Your task to perform on an android device: turn on javascript in the chrome app Image 0: 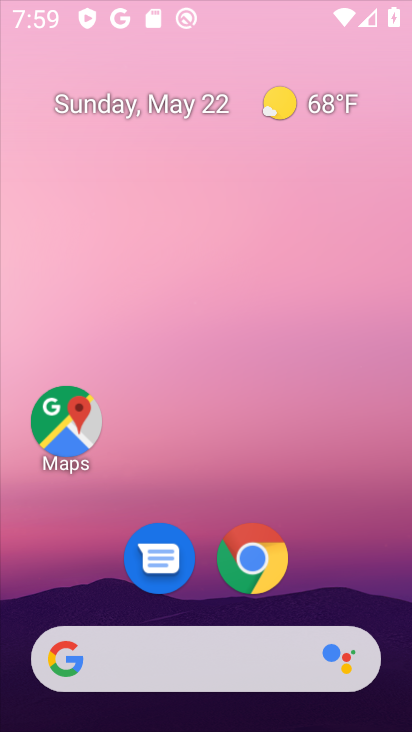
Step 0: click (303, 211)
Your task to perform on an android device: turn on javascript in the chrome app Image 1: 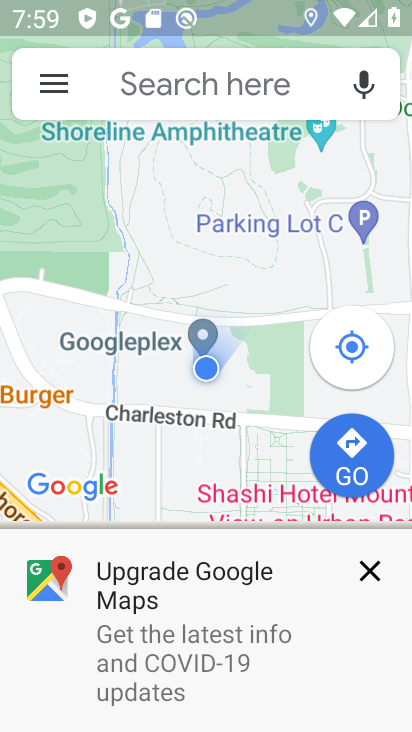
Step 1: press home button
Your task to perform on an android device: turn on javascript in the chrome app Image 2: 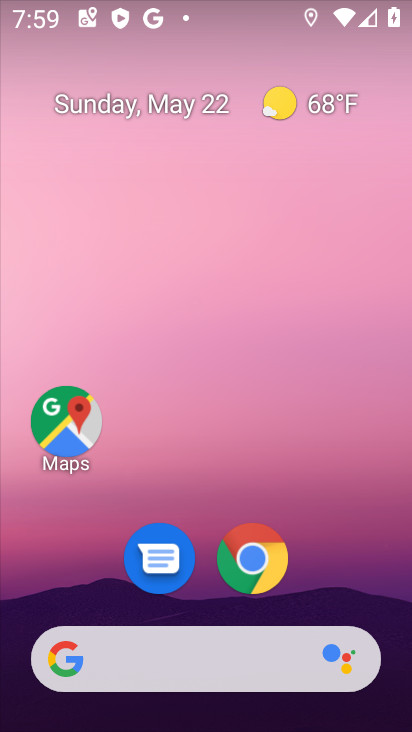
Step 2: drag from (318, 599) to (349, 350)
Your task to perform on an android device: turn on javascript in the chrome app Image 3: 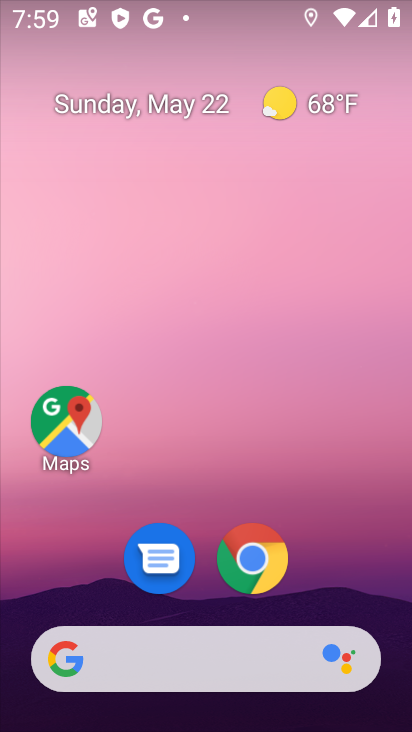
Step 3: drag from (304, 615) to (308, 275)
Your task to perform on an android device: turn on javascript in the chrome app Image 4: 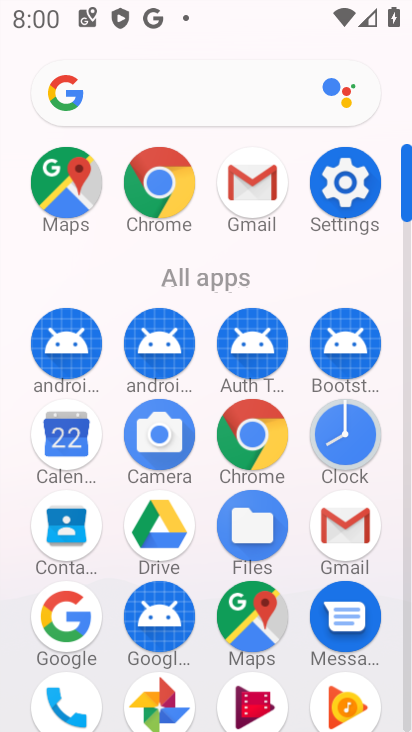
Step 4: click (350, 178)
Your task to perform on an android device: turn on javascript in the chrome app Image 5: 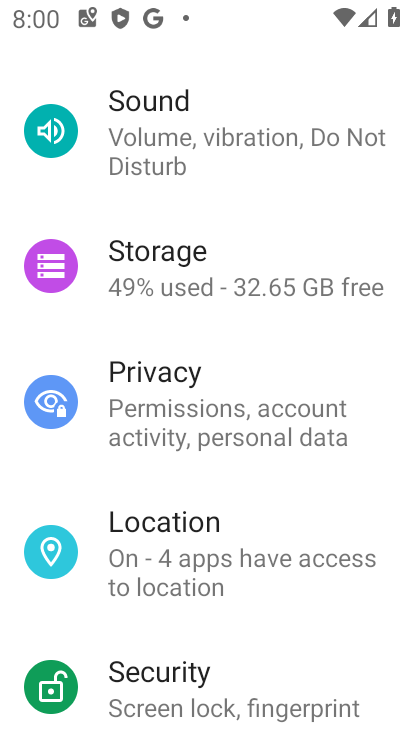
Step 5: press home button
Your task to perform on an android device: turn on javascript in the chrome app Image 6: 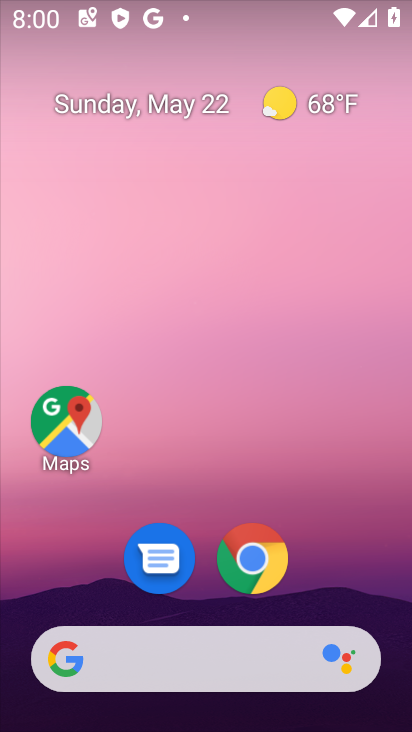
Step 6: drag from (349, 616) to (350, 184)
Your task to perform on an android device: turn on javascript in the chrome app Image 7: 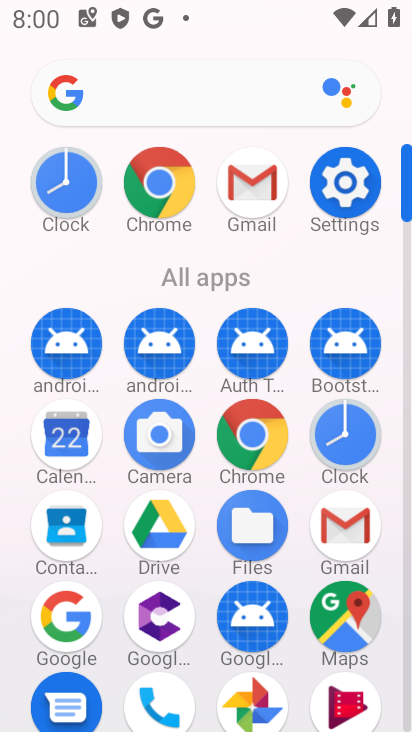
Step 7: click (249, 430)
Your task to perform on an android device: turn on javascript in the chrome app Image 8: 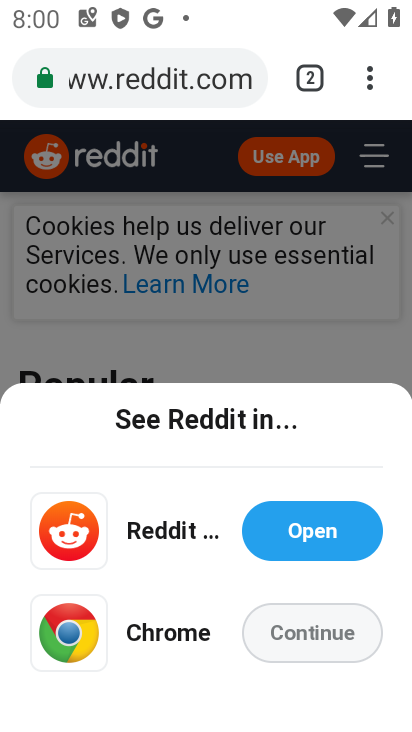
Step 8: click (362, 70)
Your task to perform on an android device: turn on javascript in the chrome app Image 9: 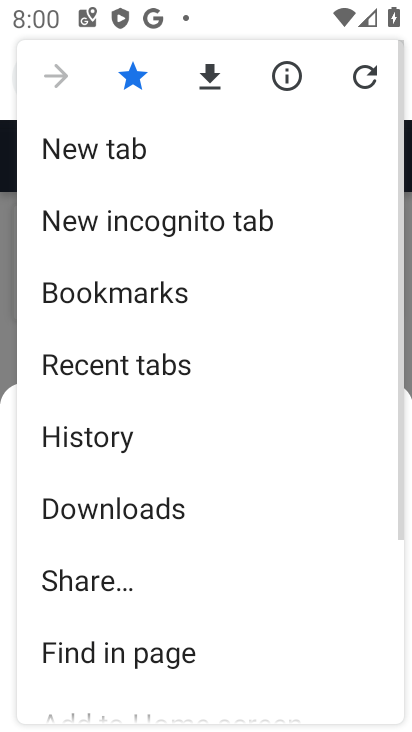
Step 9: drag from (155, 598) to (222, 247)
Your task to perform on an android device: turn on javascript in the chrome app Image 10: 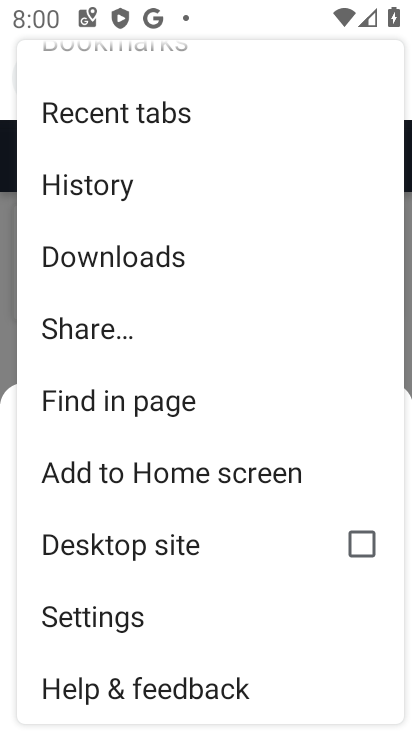
Step 10: click (166, 612)
Your task to perform on an android device: turn on javascript in the chrome app Image 11: 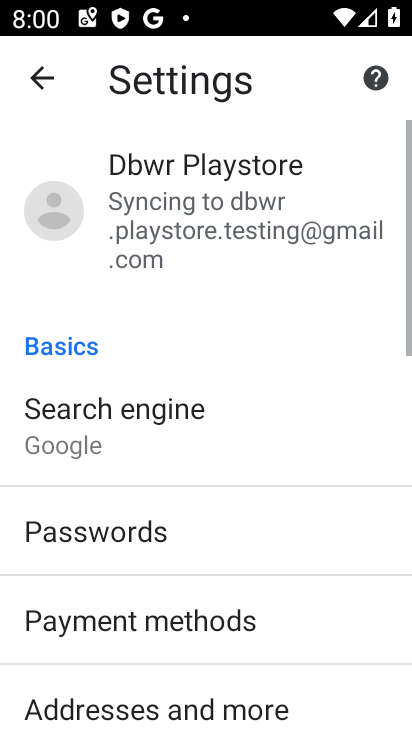
Step 11: drag from (163, 603) to (206, 216)
Your task to perform on an android device: turn on javascript in the chrome app Image 12: 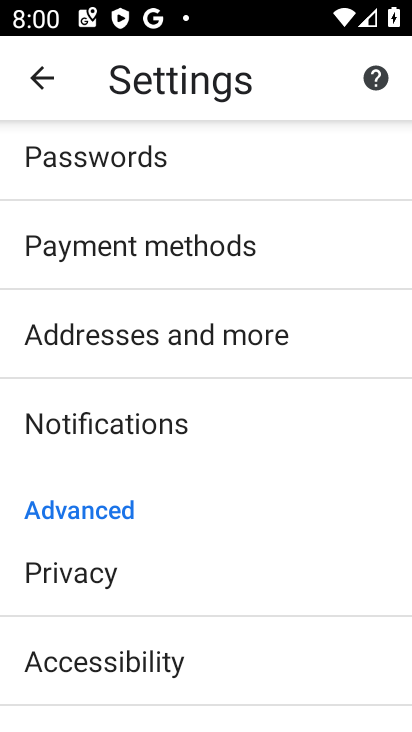
Step 12: drag from (174, 677) to (235, 390)
Your task to perform on an android device: turn on javascript in the chrome app Image 13: 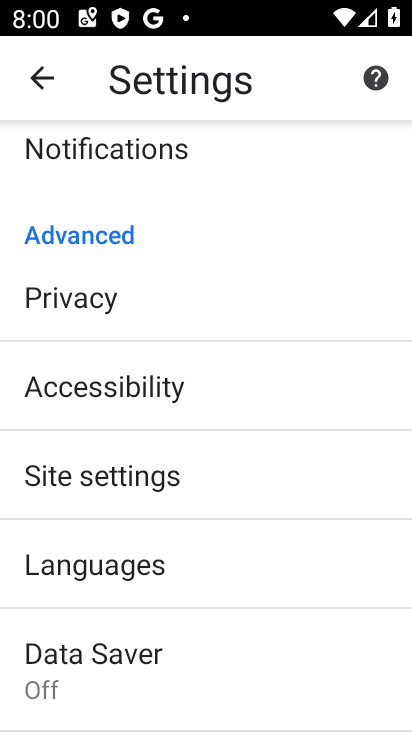
Step 13: click (182, 461)
Your task to perform on an android device: turn on javascript in the chrome app Image 14: 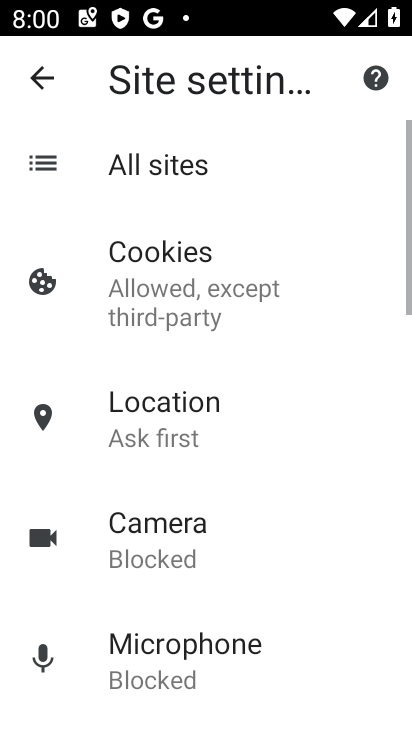
Step 14: drag from (211, 621) to (294, 281)
Your task to perform on an android device: turn on javascript in the chrome app Image 15: 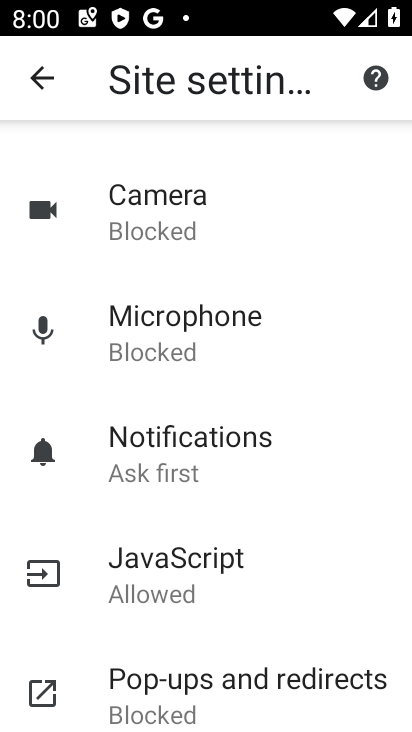
Step 15: click (225, 585)
Your task to perform on an android device: turn on javascript in the chrome app Image 16: 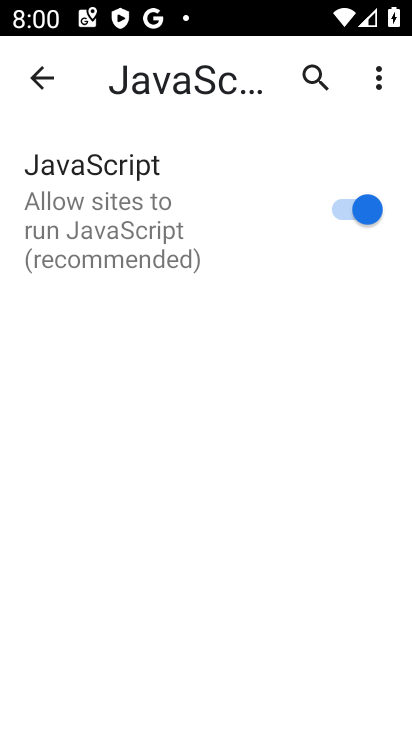
Step 16: task complete